Your task to perform on an android device: Clear the shopping cart on newegg. Search for razer blade on newegg, select the first entry, and add it to the cart. Image 0: 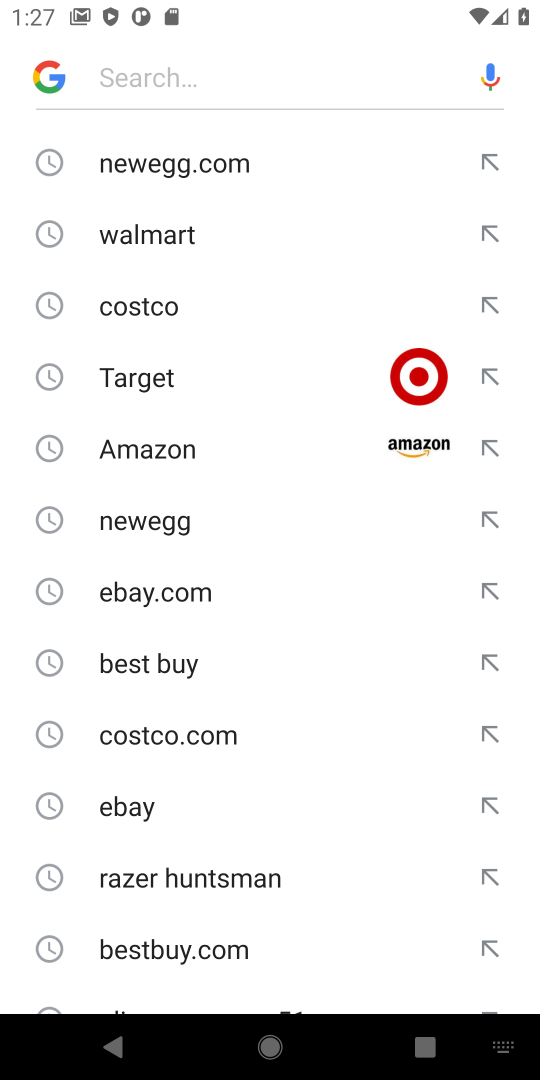
Step 0: click (165, 167)
Your task to perform on an android device: Clear the shopping cart on newegg. Search for razer blade on newegg, select the first entry, and add it to the cart. Image 1: 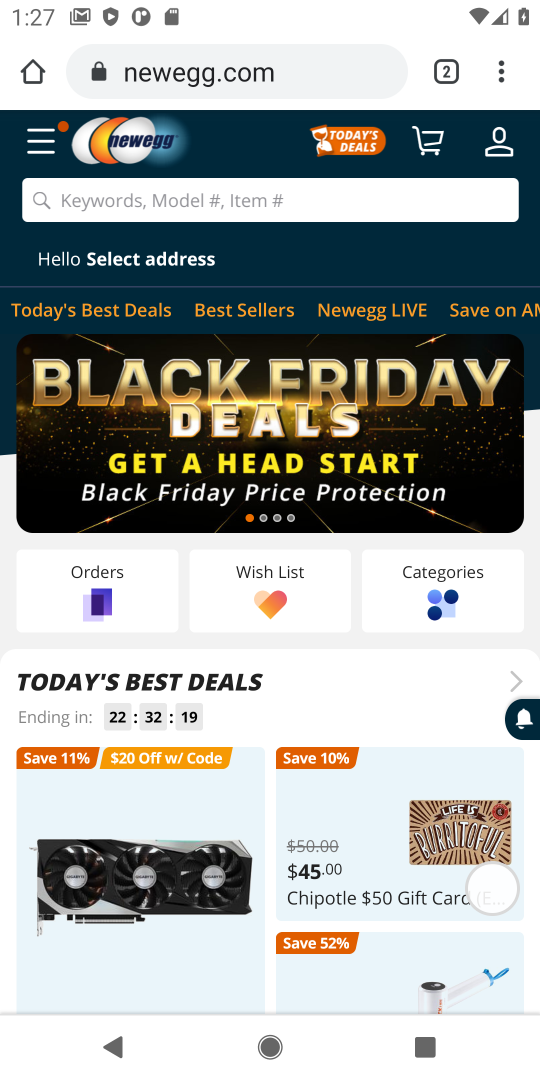
Step 1: click (431, 162)
Your task to perform on an android device: Clear the shopping cart on newegg. Search for razer blade on newegg, select the first entry, and add it to the cart. Image 2: 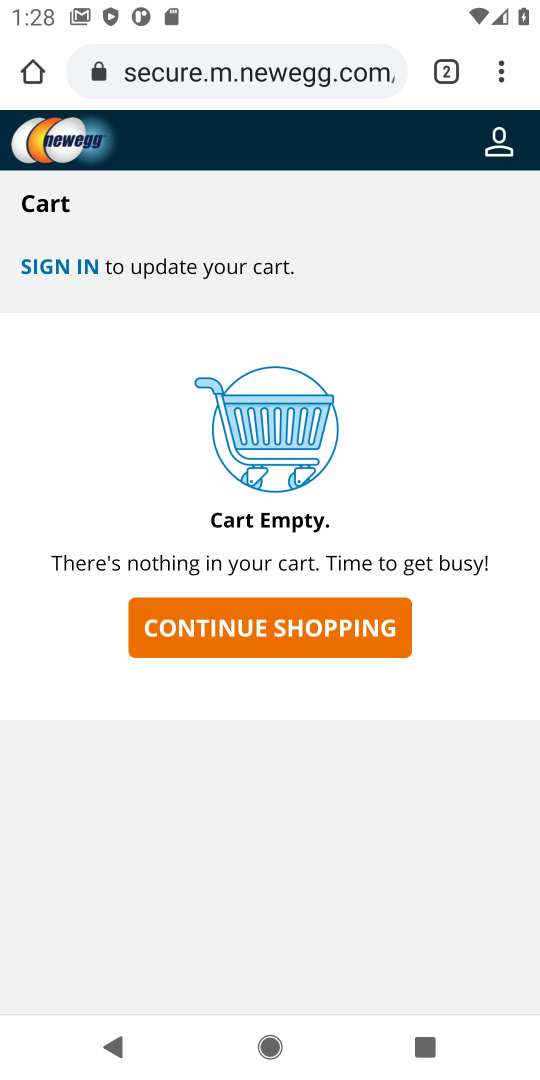
Step 2: click (203, 610)
Your task to perform on an android device: Clear the shopping cart on newegg. Search for razer blade on newegg, select the first entry, and add it to the cart. Image 3: 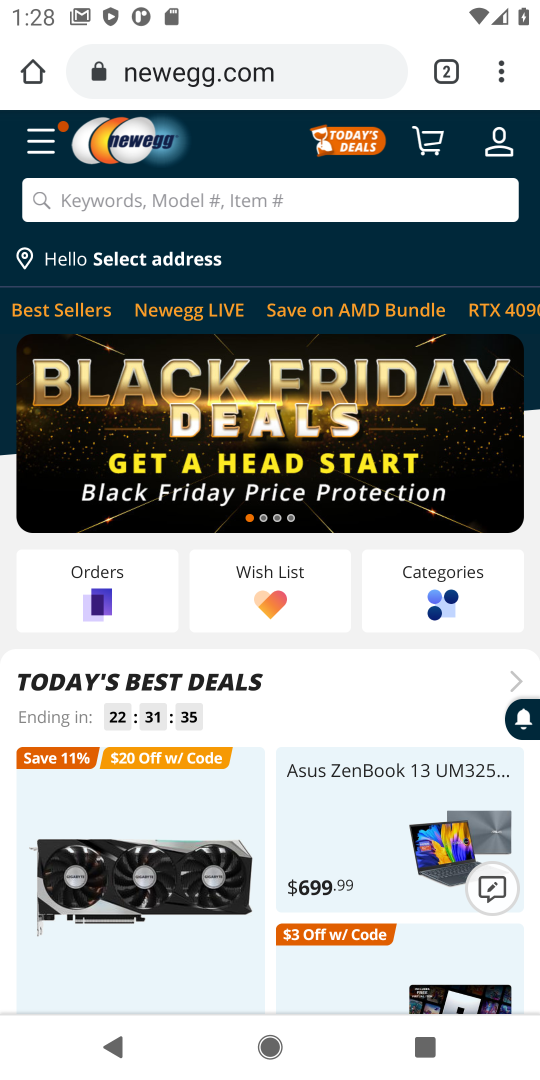
Step 3: click (85, 202)
Your task to perform on an android device: Clear the shopping cart on newegg. Search for razer blade on newegg, select the first entry, and add it to the cart. Image 4: 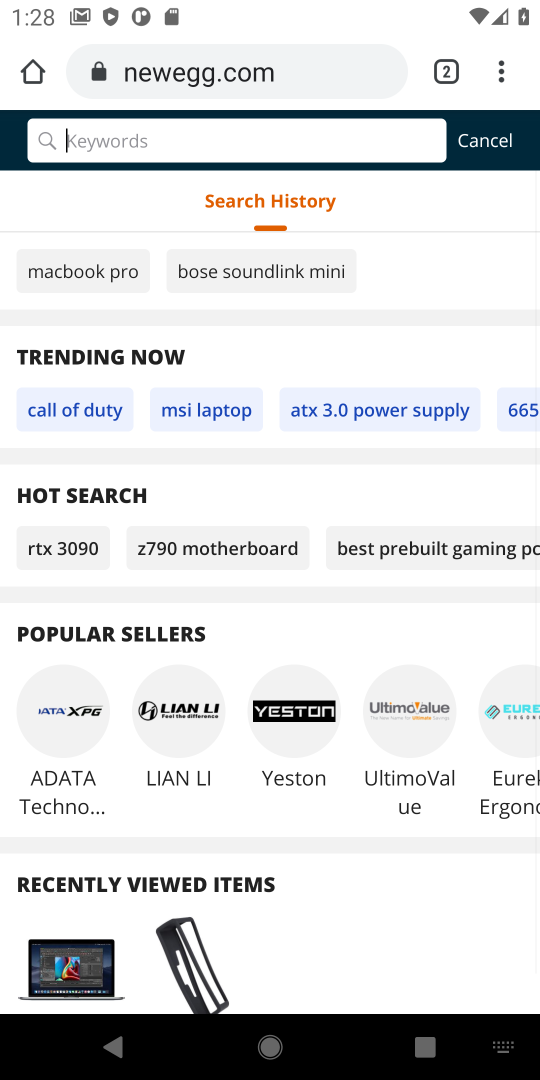
Step 4: type "razer blade"
Your task to perform on an android device: Clear the shopping cart on newegg. Search for razer blade on newegg, select the first entry, and add it to the cart. Image 5: 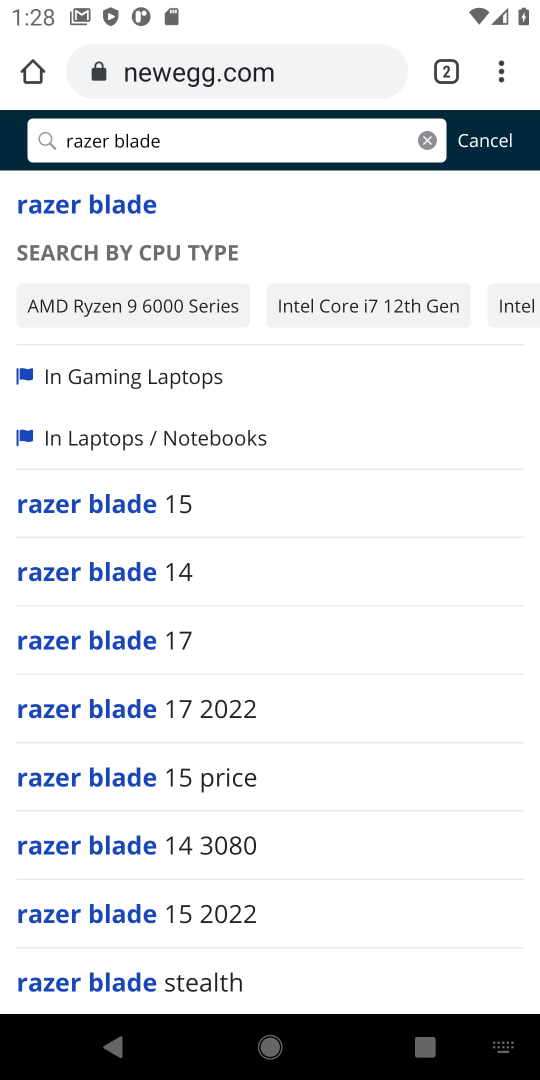
Step 5: click (63, 218)
Your task to perform on an android device: Clear the shopping cart on newegg. Search for razer blade on newegg, select the first entry, and add it to the cart. Image 6: 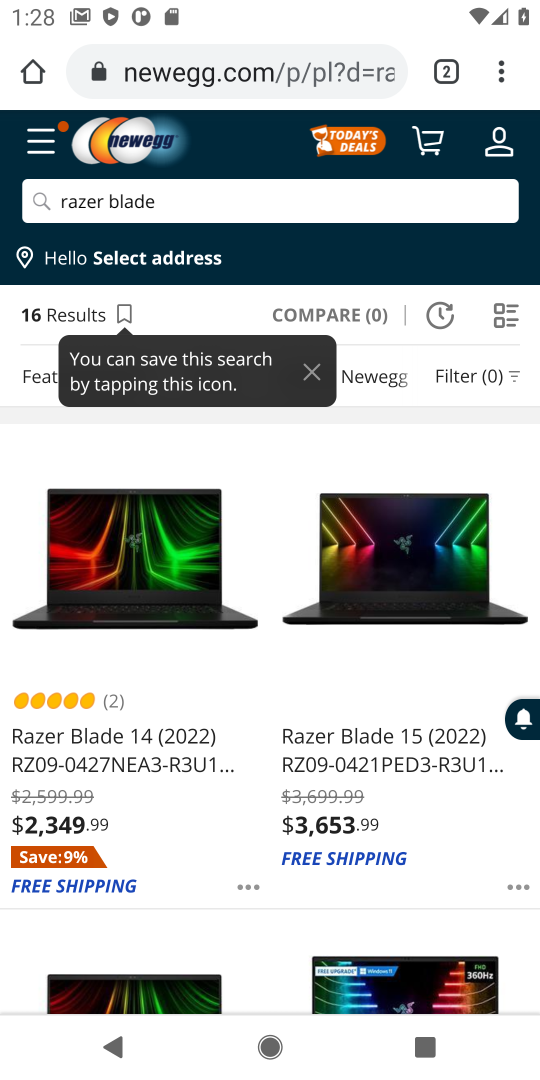
Step 6: click (91, 606)
Your task to perform on an android device: Clear the shopping cart on newegg. Search for razer blade on newegg, select the first entry, and add it to the cart. Image 7: 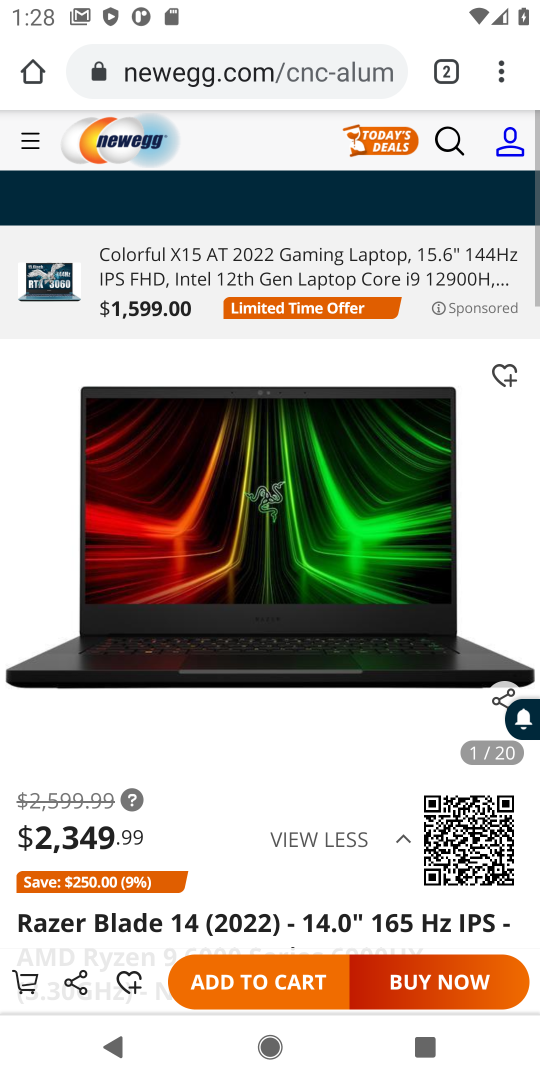
Step 7: click (66, 662)
Your task to perform on an android device: Clear the shopping cart on newegg. Search for razer blade on newegg, select the first entry, and add it to the cart. Image 8: 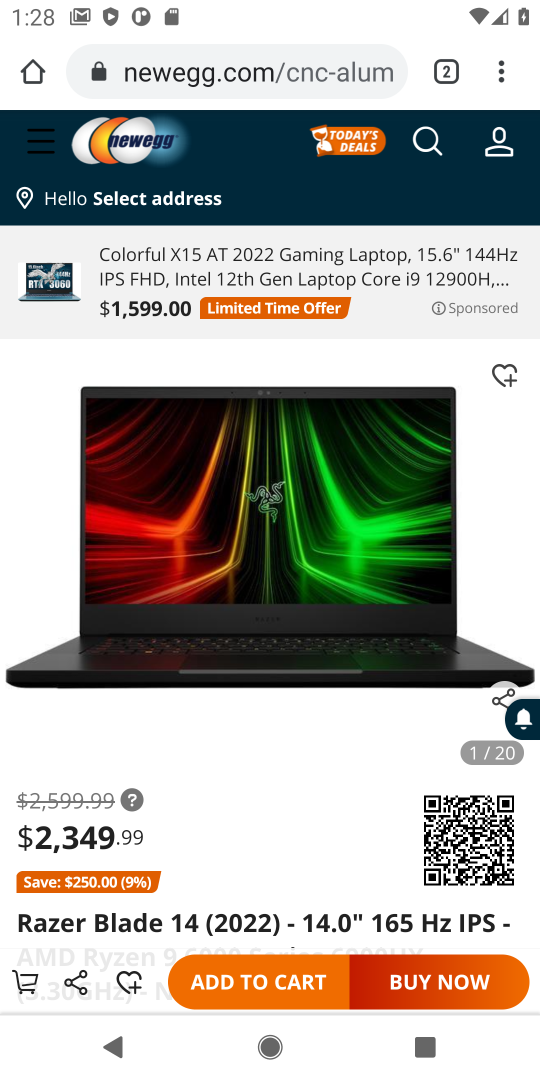
Step 8: drag from (98, 700) to (129, 470)
Your task to perform on an android device: Clear the shopping cart on newegg. Search for razer blade on newegg, select the first entry, and add it to the cart. Image 9: 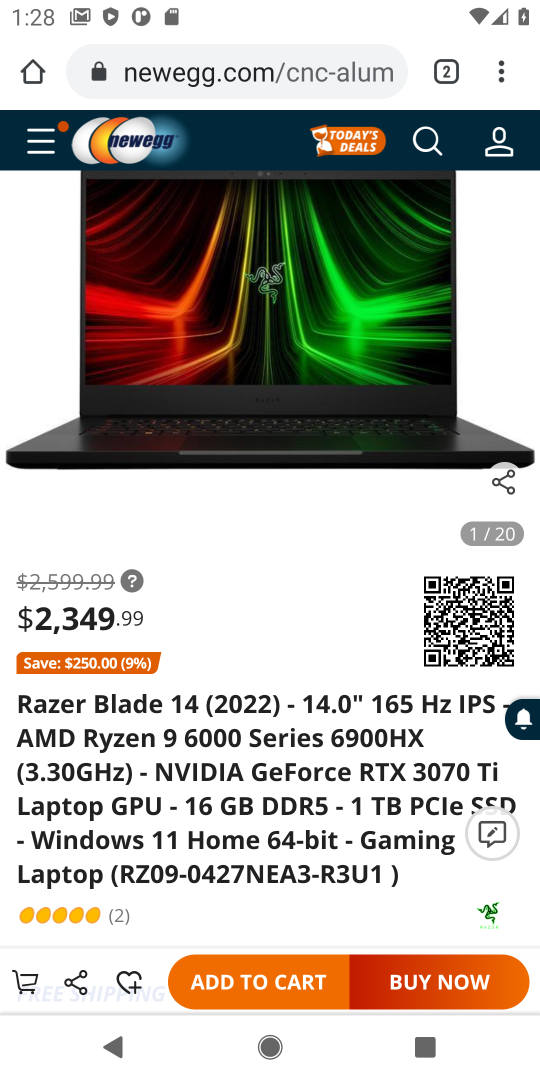
Step 9: click (237, 985)
Your task to perform on an android device: Clear the shopping cart on newegg. Search for razer blade on newegg, select the first entry, and add it to the cart. Image 10: 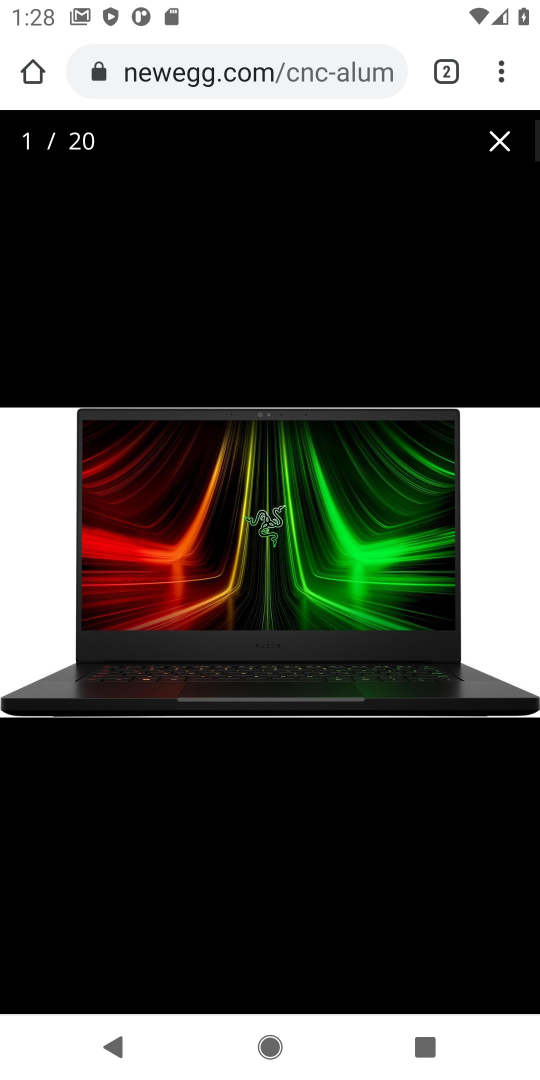
Step 10: click (502, 153)
Your task to perform on an android device: Clear the shopping cart on newegg. Search for razer blade on newegg, select the first entry, and add it to the cart. Image 11: 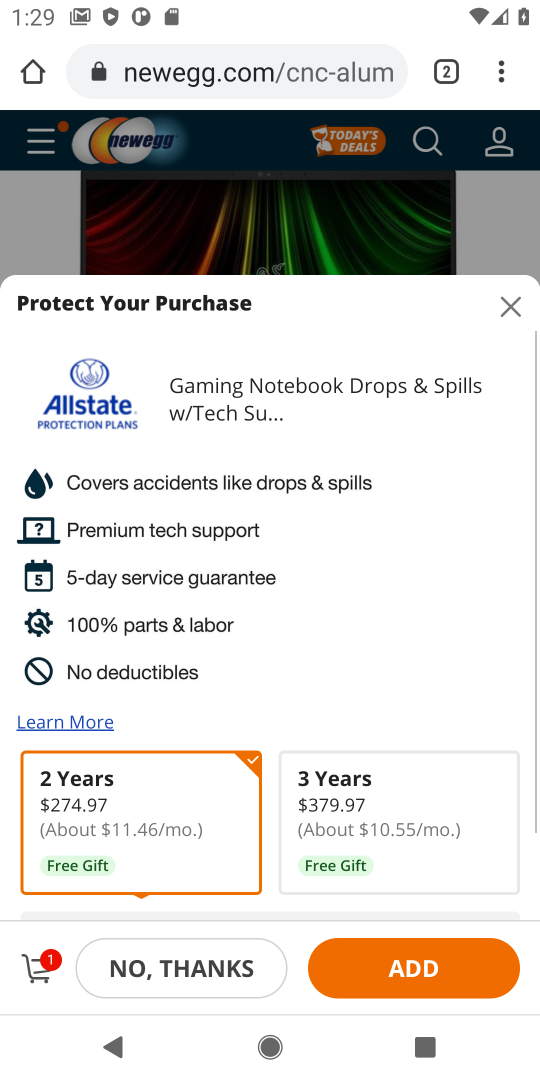
Step 11: task complete